Your task to perform on an android device: Add razer kraken to the cart on costco.com, then select checkout. Image 0: 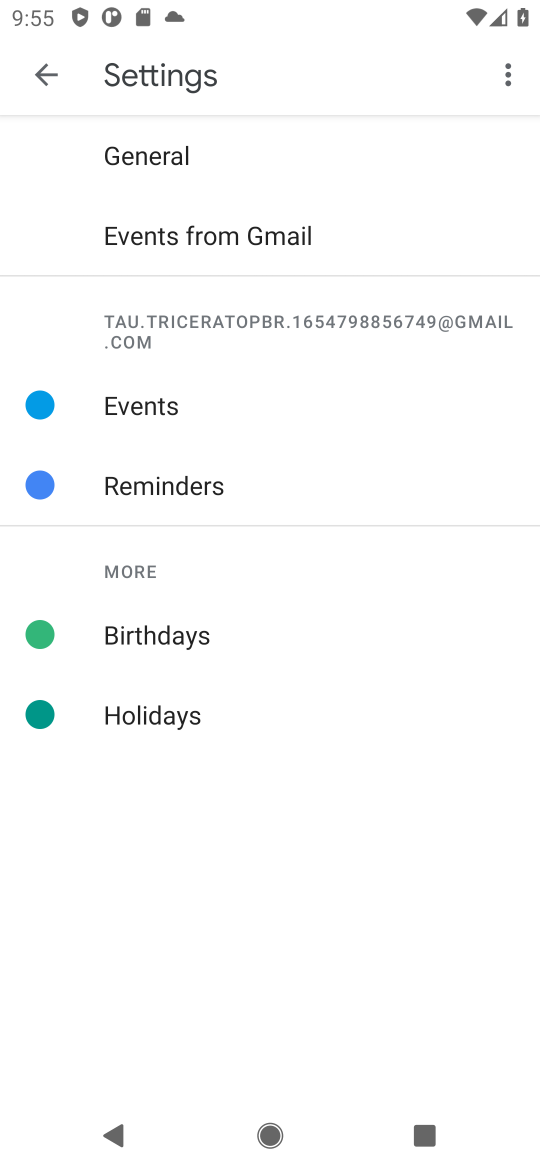
Step 0: click (372, 918)
Your task to perform on an android device: Add razer kraken to the cart on costco.com, then select checkout. Image 1: 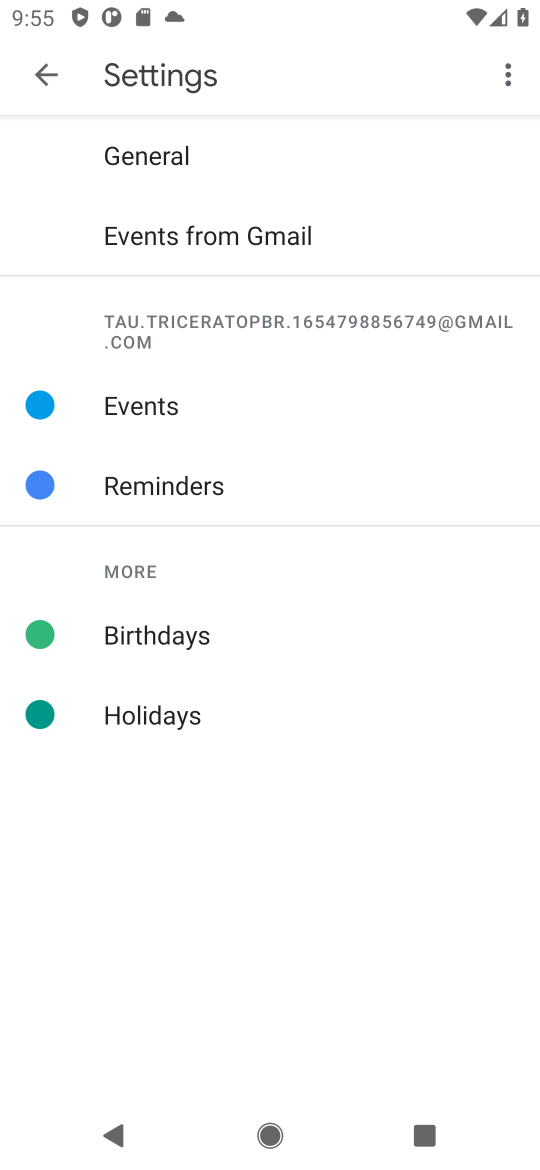
Step 1: press home button
Your task to perform on an android device: Add razer kraken to the cart on costco.com, then select checkout. Image 2: 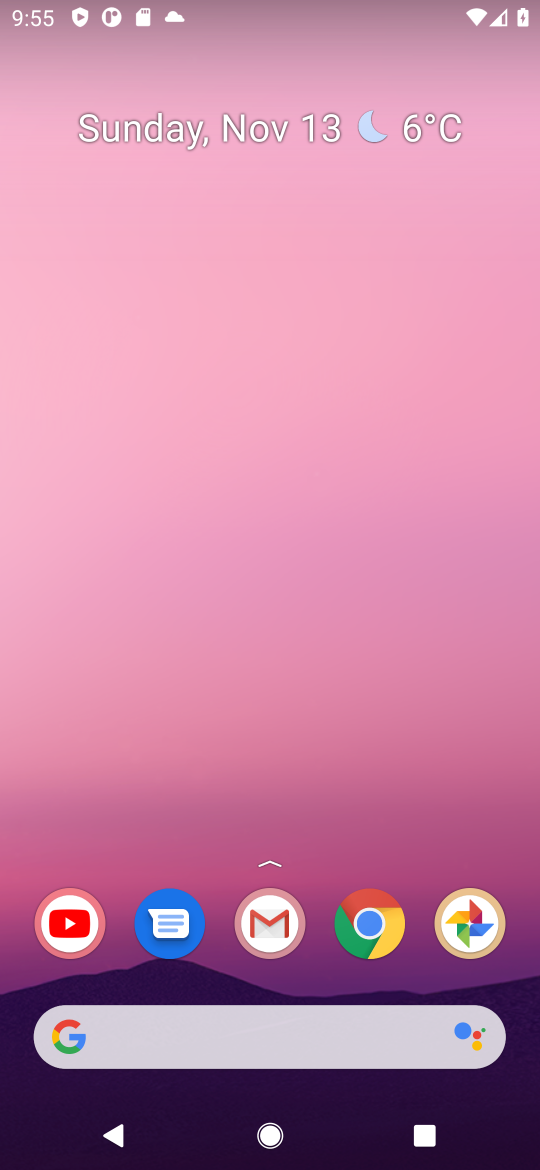
Step 2: click (372, 903)
Your task to perform on an android device: Add razer kraken to the cart on costco.com, then select checkout. Image 3: 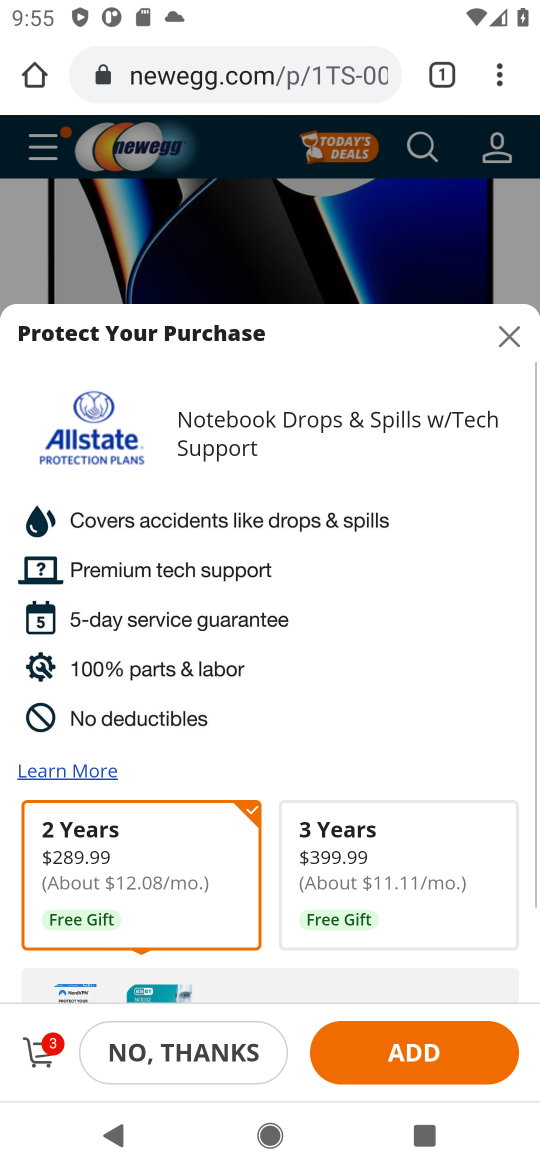
Step 3: click (244, 76)
Your task to perform on an android device: Add razer kraken to the cart on costco.com, then select checkout. Image 4: 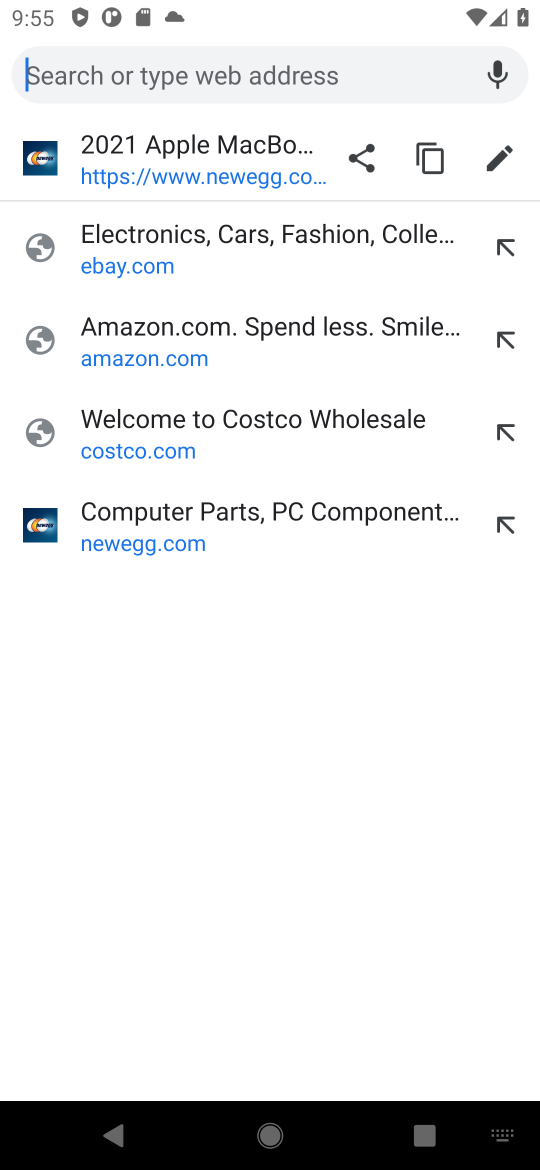
Step 4: click (195, 409)
Your task to perform on an android device: Add razer kraken to the cart on costco.com, then select checkout. Image 5: 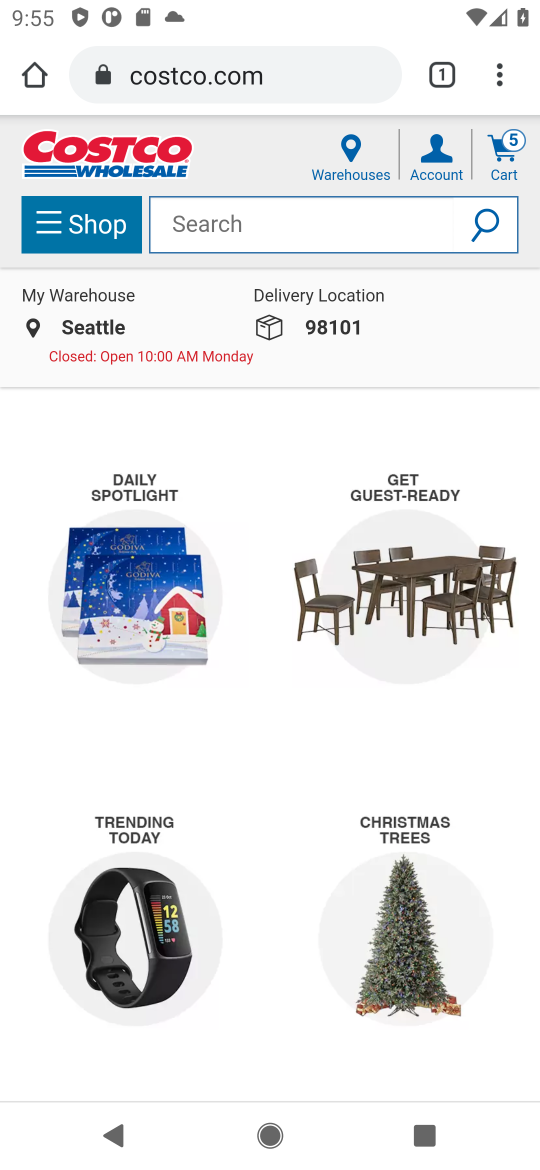
Step 5: click (355, 218)
Your task to perform on an android device: Add razer kraken to the cart on costco.com, then select checkout. Image 6: 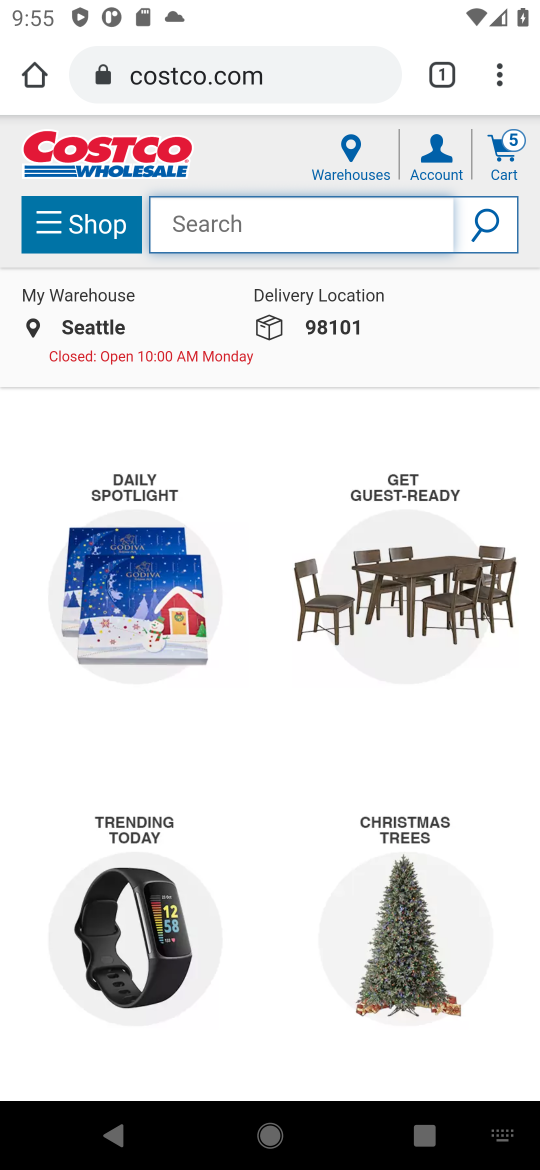
Step 6: type "razer kraken"
Your task to perform on an android device: Add razer kraken to the cart on costco.com, then select checkout. Image 7: 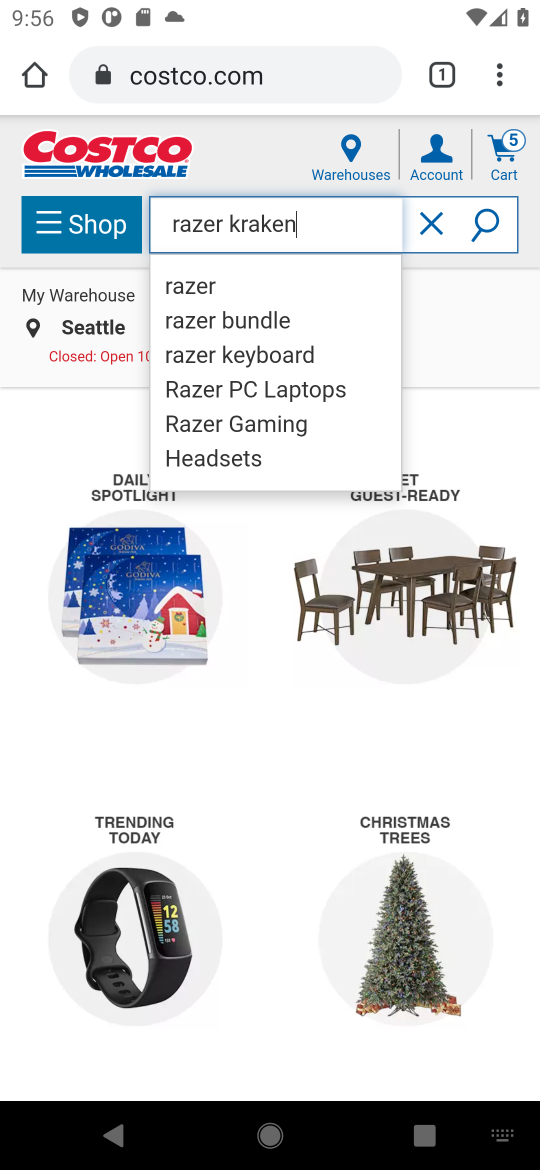
Step 7: click (487, 228)
Your task to perform on an android device: Add razer kraken to the cart on costco.com, then select checkout. Image 8: 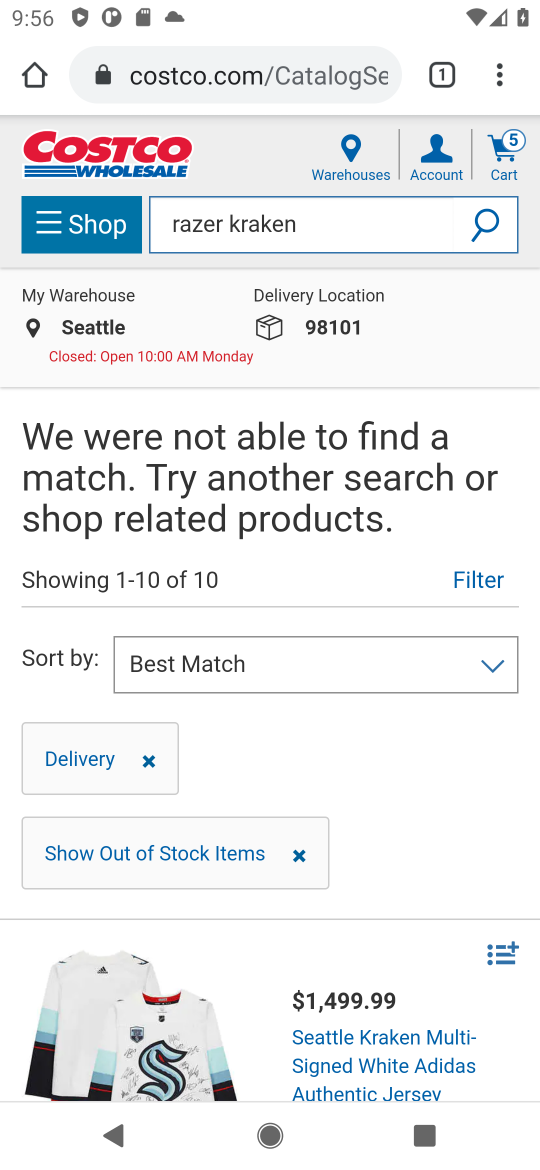
Step 8: task complete